Your task to perform on an android device: Open network settings Image 0: 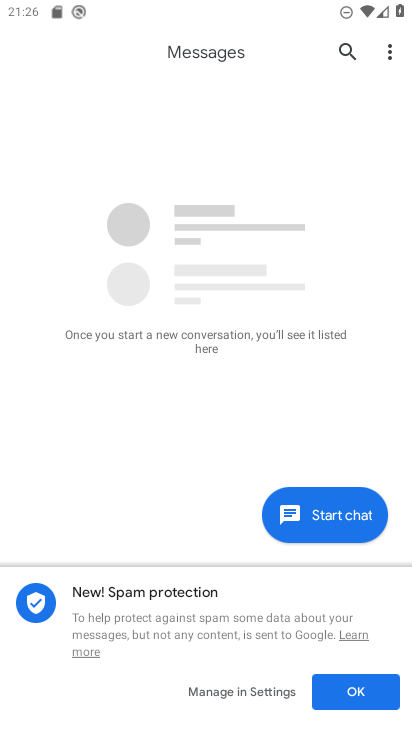
Step 0: press home button
Your task to perform on an android device: Open network settings Image 1: 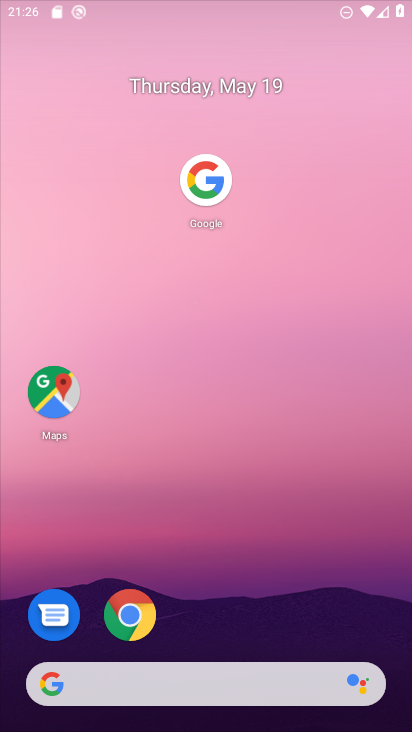
Step 1: drag from (222, 577) to (233, 33)
Your task to perform on an android device: Open network settings Image 2: 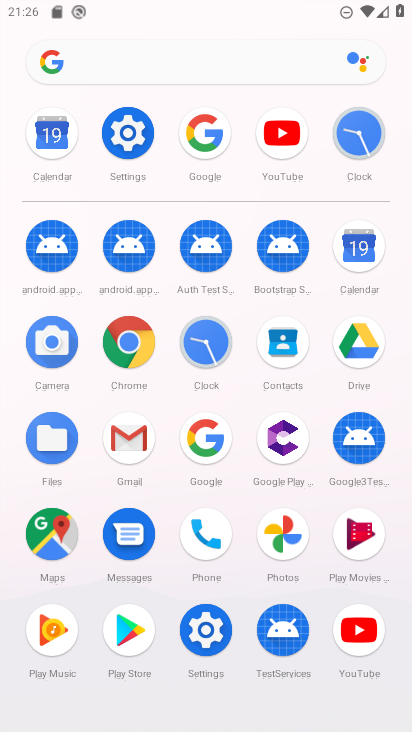
Step 2: click (126, 141)
Your task to perform on an android device: Open network settings Image 3: 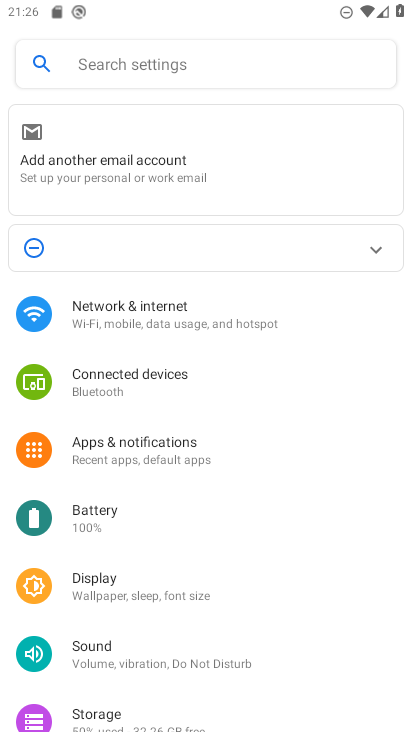
Step 3: click (175, 317)
Your task to perform on an android device: Open network settings Image 4: 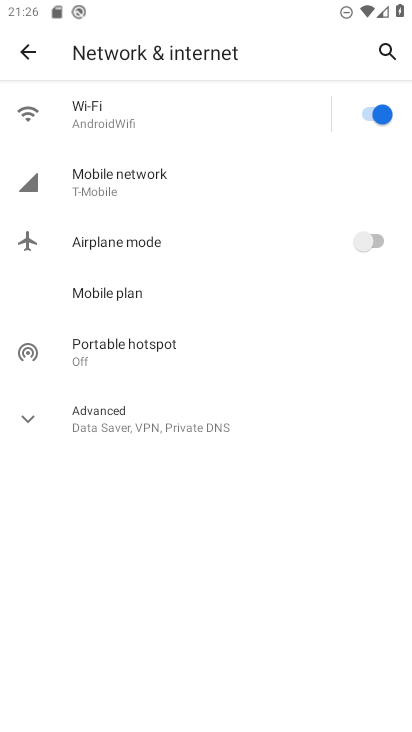
Step 4: click (116, 162)
Your task to perform on an android device: Open network settings Image 5: 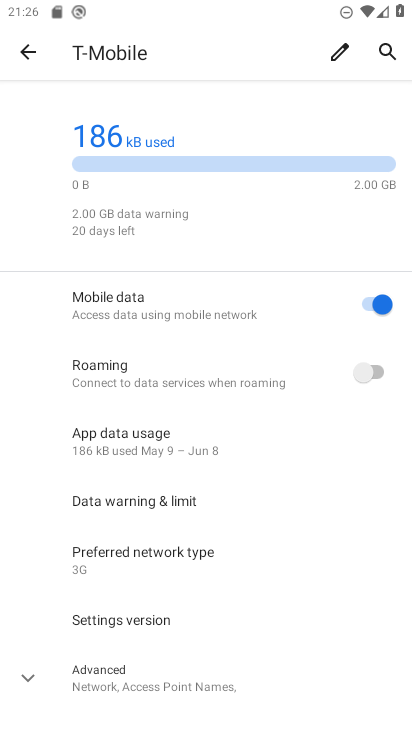
Step 5: task complete